Your task to perform on an android device: Open Chrome and go to the settings page Image 0: 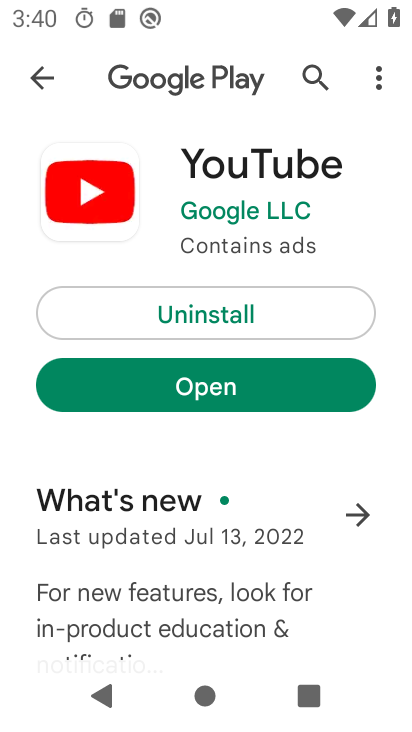
Step 0: press home button
Your task to perform on an android device: Open Chrome and go to the settings page Image 1: 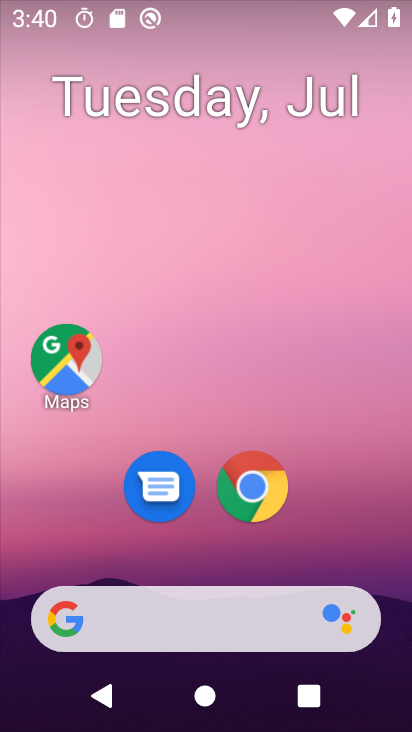
Step 1: drag from (352, 562) to (341, 89)
Your task to perform on an android device: Open Chrome and go to the settings page Image 2: 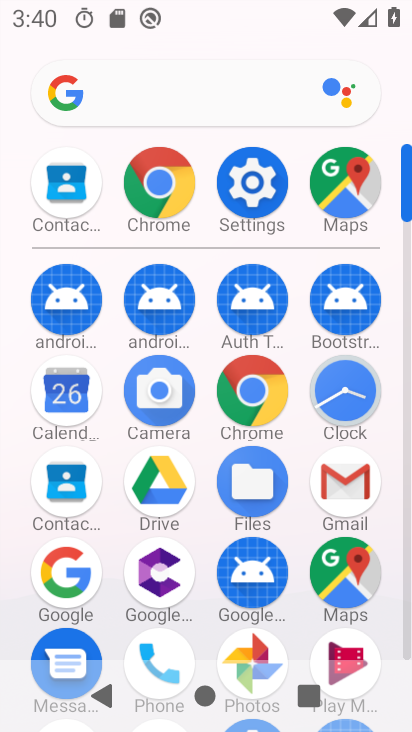
Step 2: click (264, 399)
Your task to perform on an android device: Open Chrome and go to the settings page Image 3: 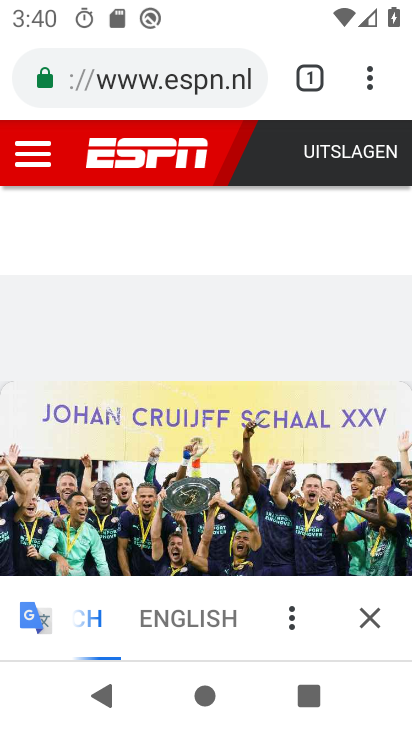
Step 3: click (370, 88)
Your task to perform on an android device: Open Chrome and go to the settings page Image 4: 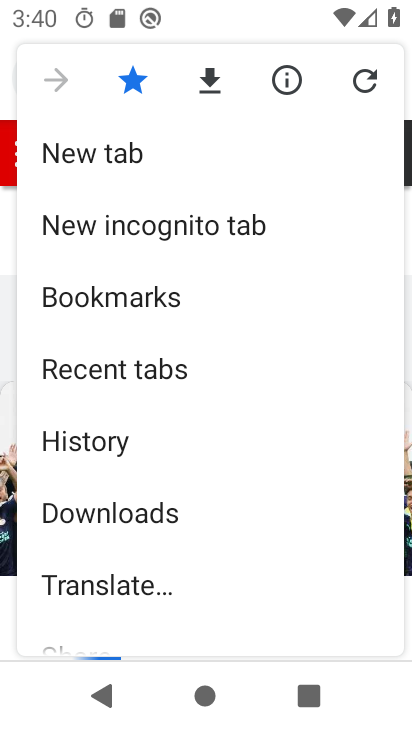
Step 4: drag from (285, 388) to (286, 298)
Your task to perform on an android device: Open Chrome and go to the settings page Image 5: 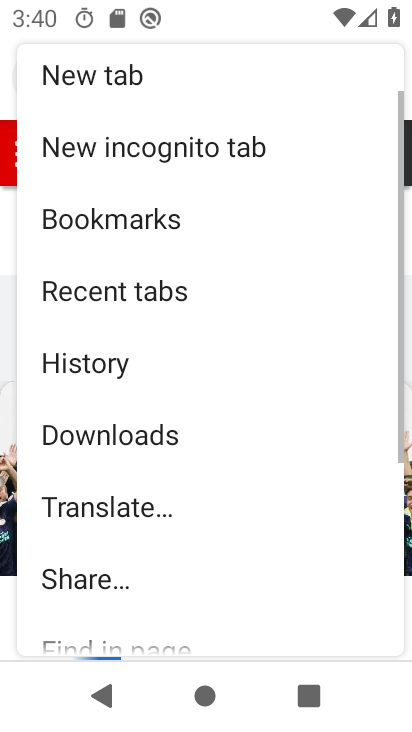
Step 5: drag from (296, 417) to (299, 319)
Your task to perform on an android device: Open Chrome and go to the settings page Image 6: 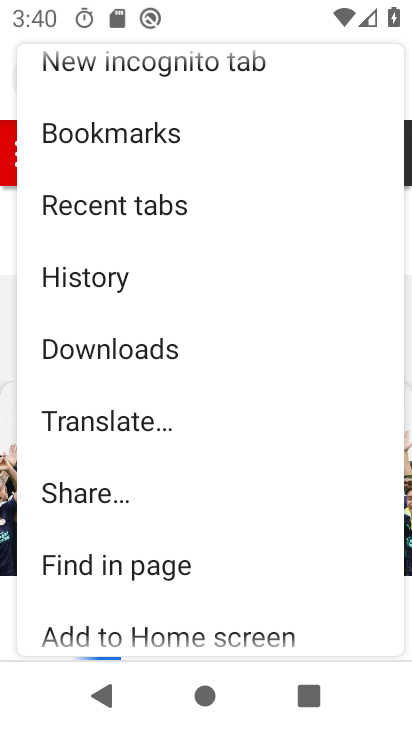
Step 6: drag from (300, 438) to (286, 302)
Your task to perform on an android device: Open Chrome and go to the settings page Image 7: 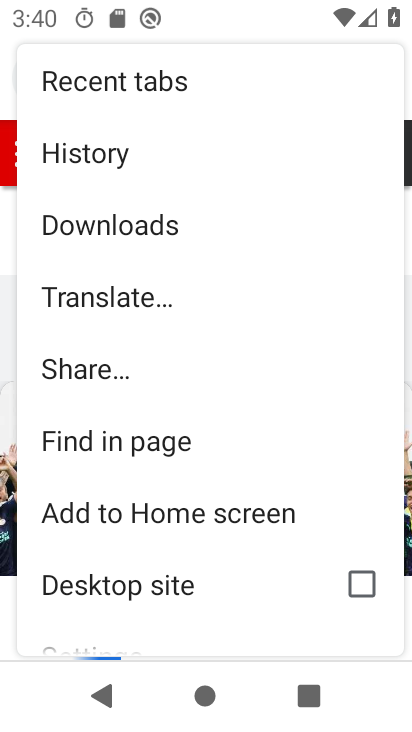
Step 7: drag from (288, 479) to (272, 298)
Your task to perform on an android device: Open Chrome and go to the settings page Image 8: 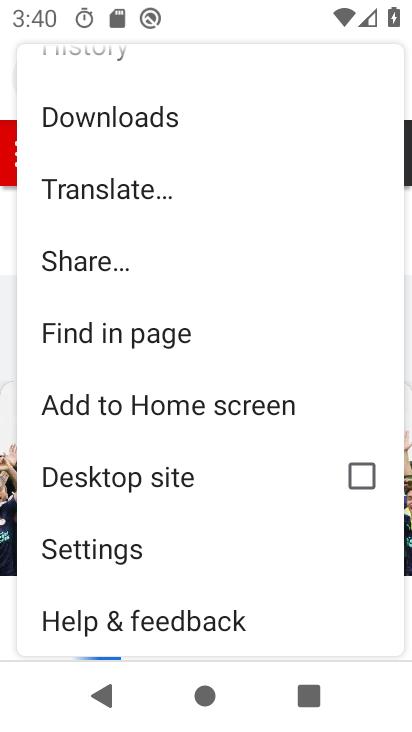
Step 8: click (266, 566)
Your task to perform on an android device: Open Chrome and go to the settings page Image 9: 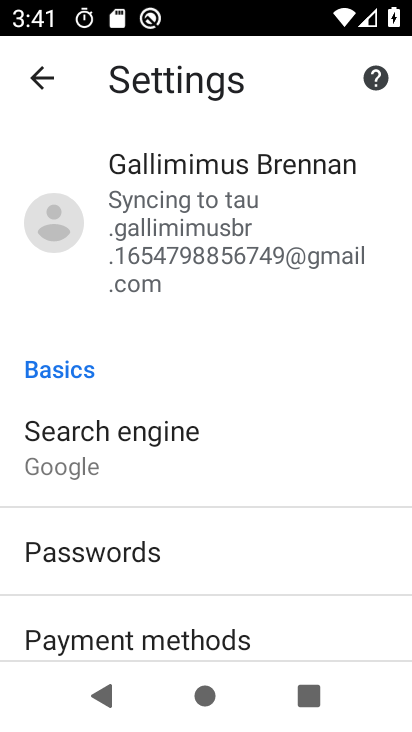
Step 9: task complete